Your task to perform on an android device: Check the weather Image 0: 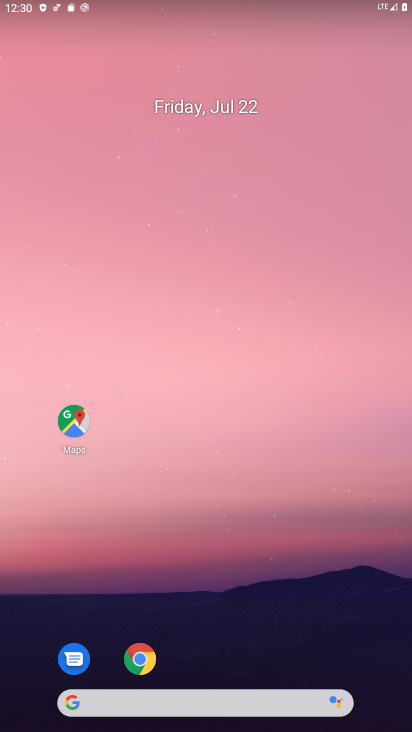
Step 0: drag from (196, 655) to (168, 193)
Your task to perform on an android device: Check the weather Image 1: 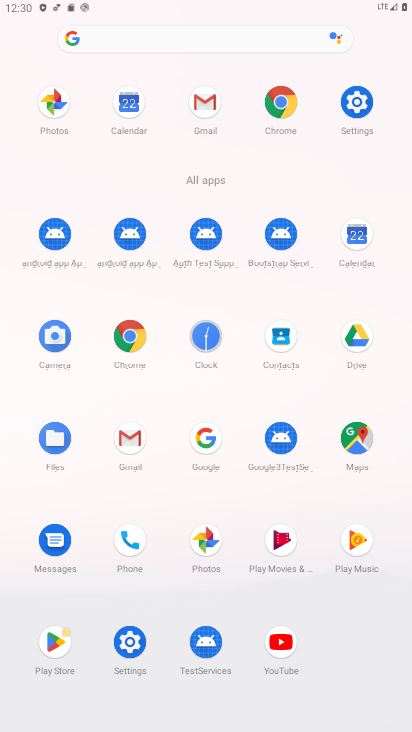
Step 1: click (215, 430)
Your task to perform on an android device: Check the weather Image 2: 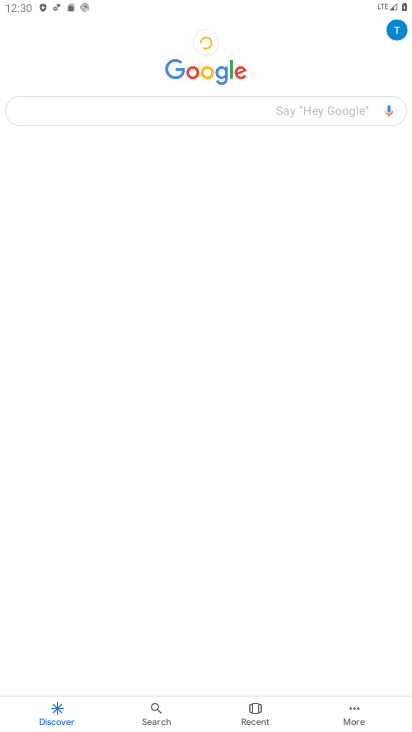
Step 2: click (120, 104)
Your task to perform on an android device: Check the weather Image 3: 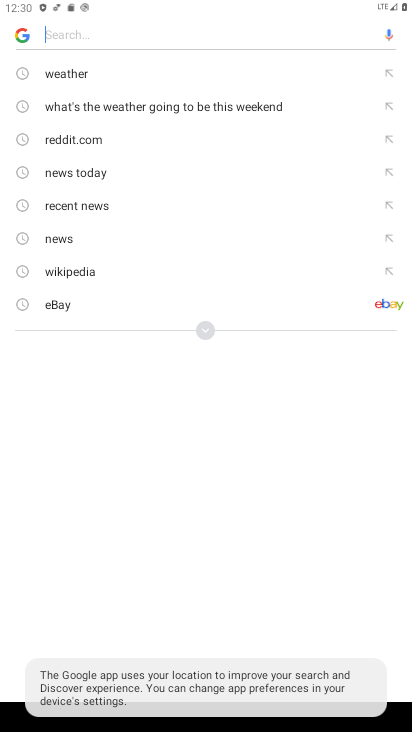
Step 3: click (107, 69)
Your task to perform on an android device: Check the weather Image 4: 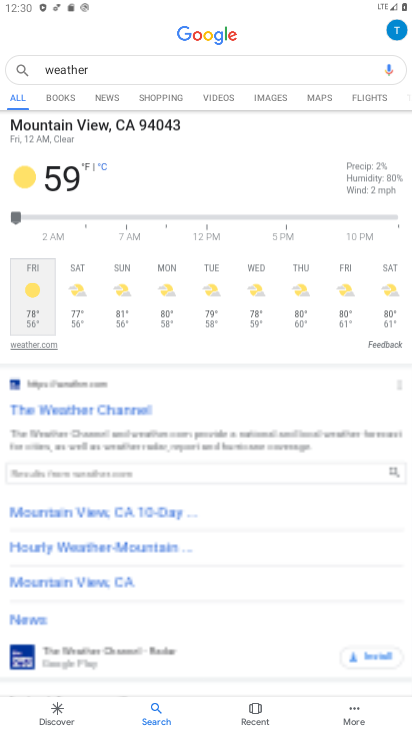
Step 4: task complete